Your task to perform on an android device: Toggle the flashlight Image 0: 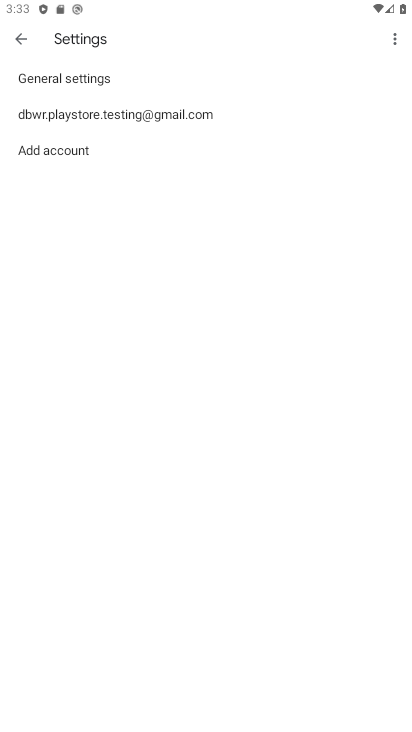
Step 0: press home button
Your task to perform on an android device: Toggle the flashlight Image 1: 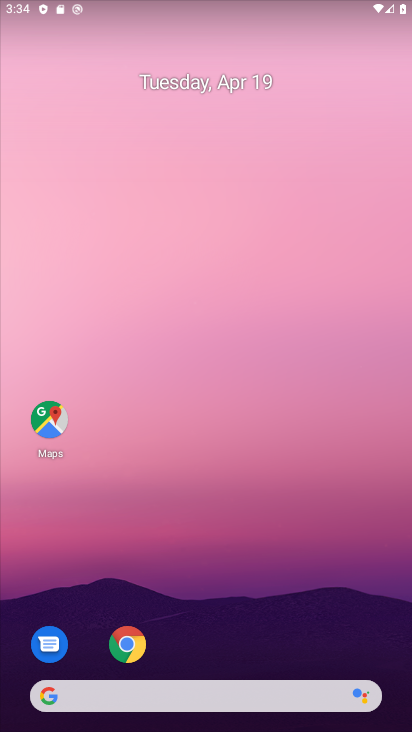
Step 1: drag from (333, 398) to (317, 180)
Your task to perform on an android device: Toggle the flashlight Image 2: 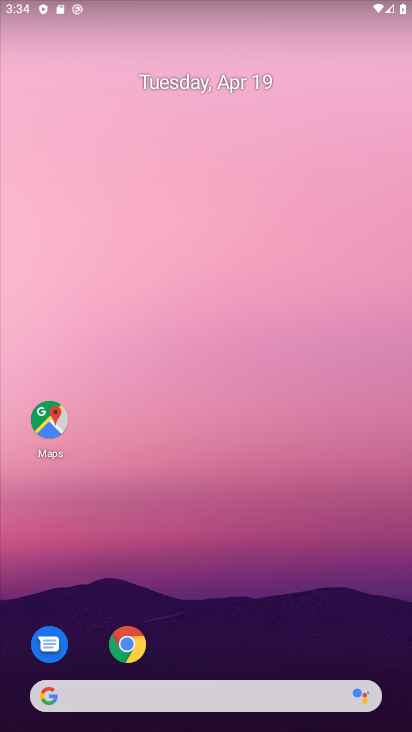
Step 2: drag from (371, 600) to (373, 82)
Your task to perform on an android device: Toggle the flashlight Image 3: 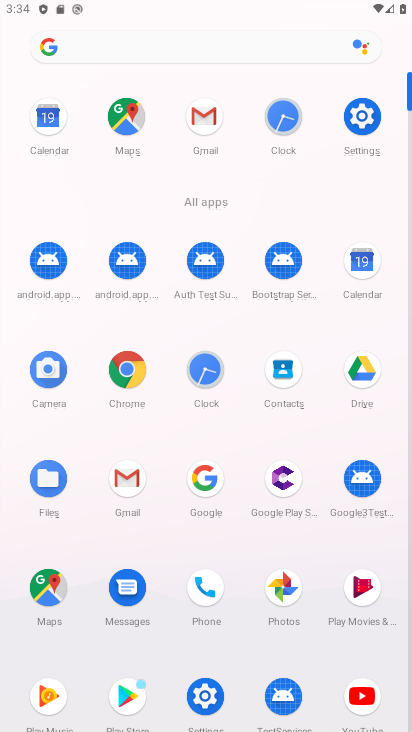
Step 3: click (355, 124)
Your task to perform on an android device: Toggle the flashlight Image 4: 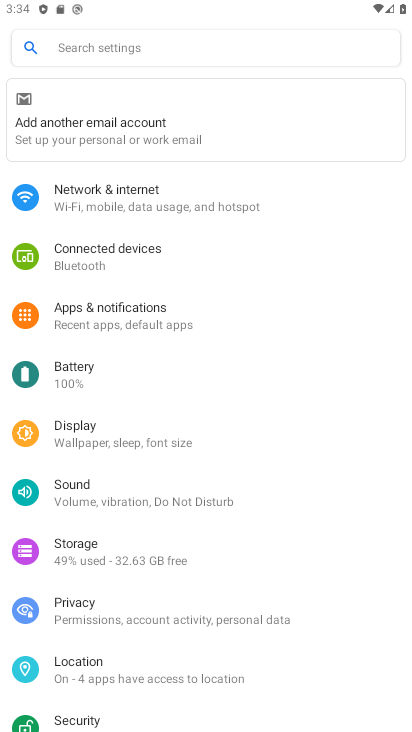
Step 4: click (57, 428)
Your task to perform on an android device: Toggle the flashlight Image 5: 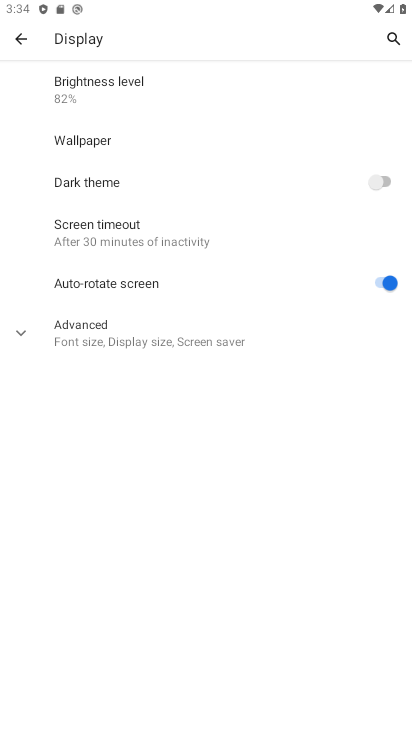
Step 5: task complete